Your task to perform on an android device: Search for vegetarian restaurants on Maps Image 0: 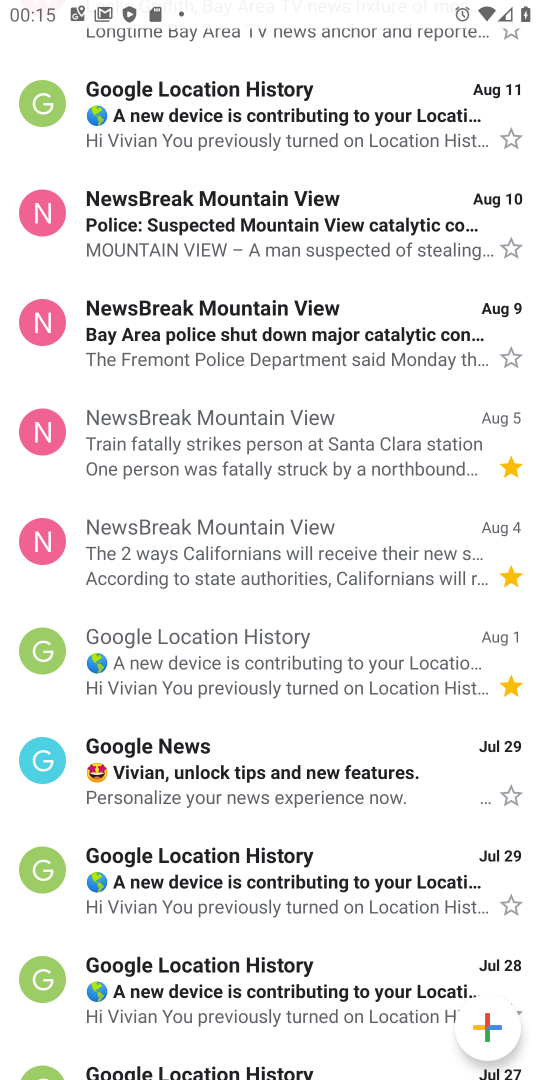
Step 0: press home button
Your task to perform on an android device: Search for vegetarian restaurants on Maps Image 1: 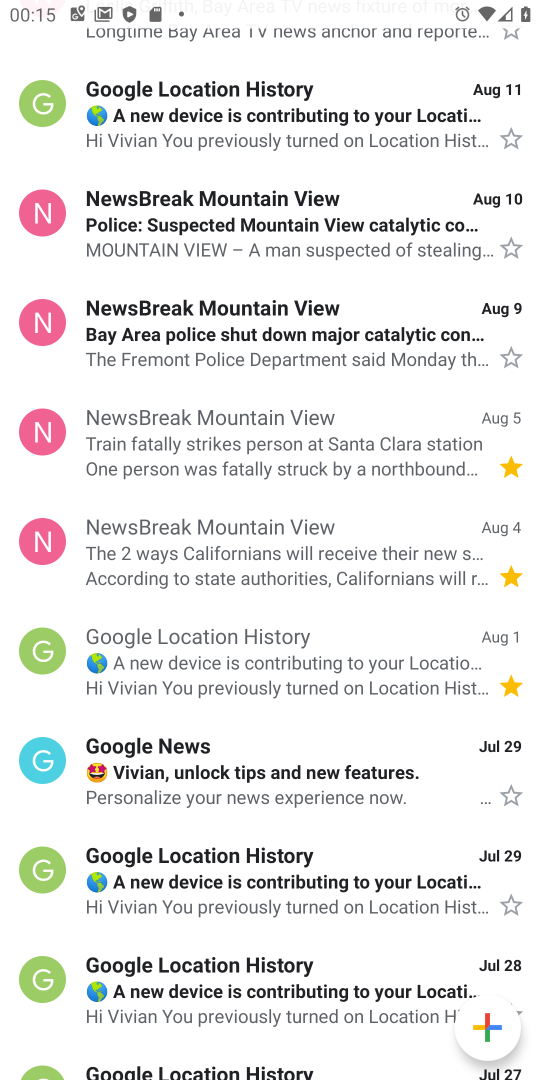
Step 1: press home button
Your task to perform on an android device: Search for vegetarian restaurants on Maps Image 2: 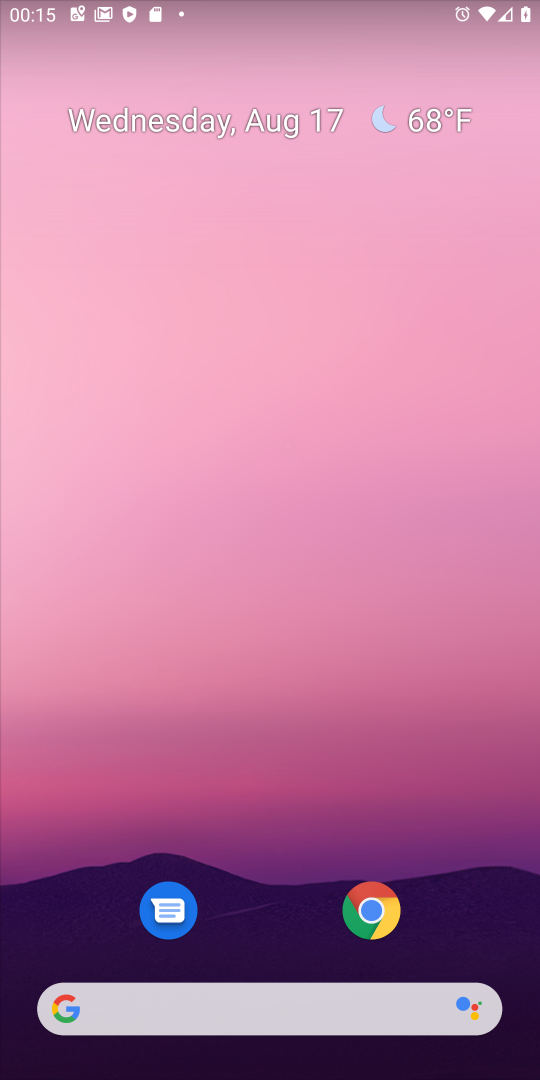
Step 2: drag from (246, 894) to (354, 284)
Your task to perform on an android device: Search for vegetarian restaurants on Maps Image 3: 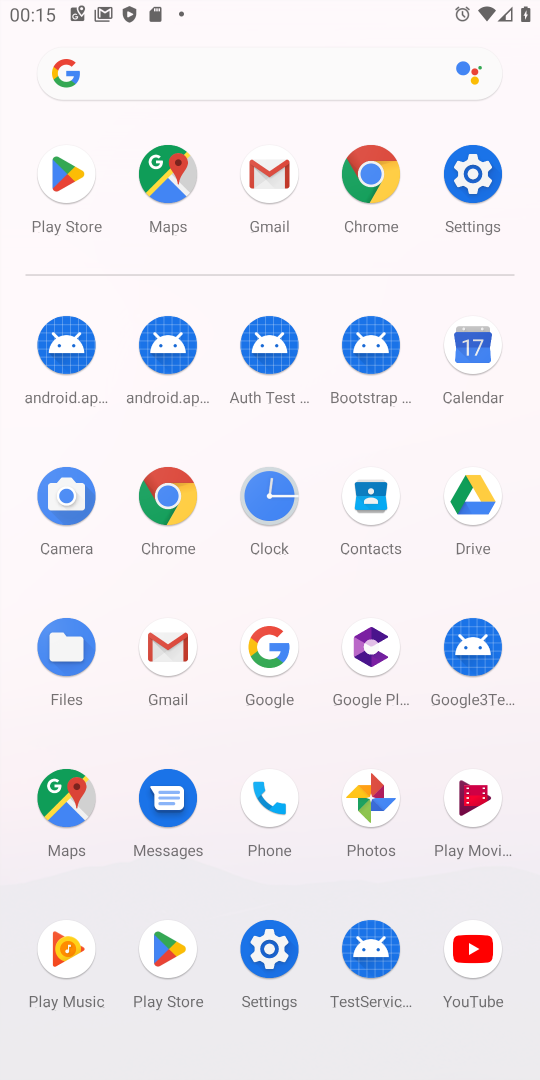
Step 3: click (48, 800)
Your task to perform on an android device: Search for vegetarian restaurants on Maps Image 4: 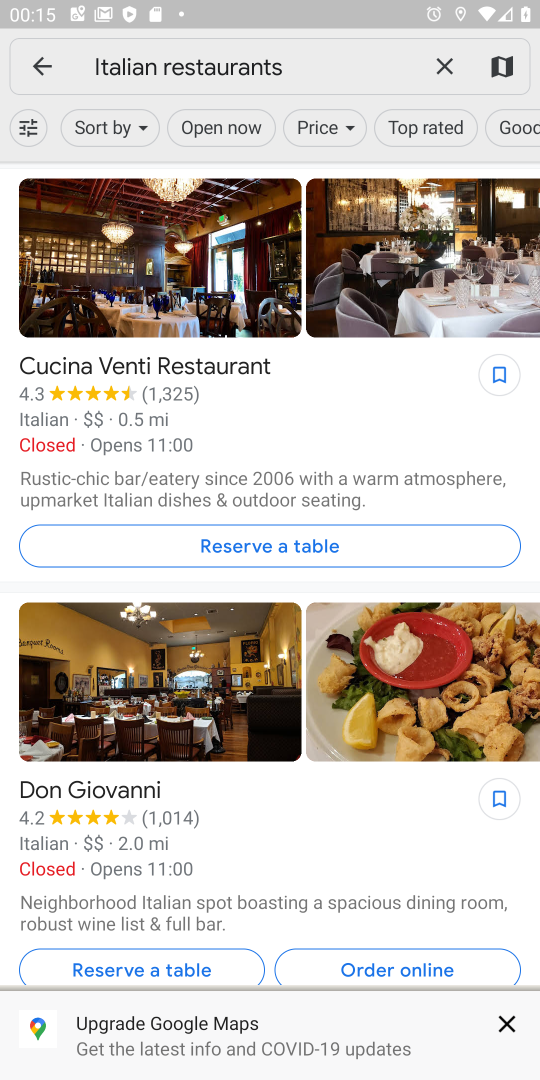
Step 4: click (462, 65)
Your task to perform on an android device: Search for vegetarian restaurants on Maps Image 5: 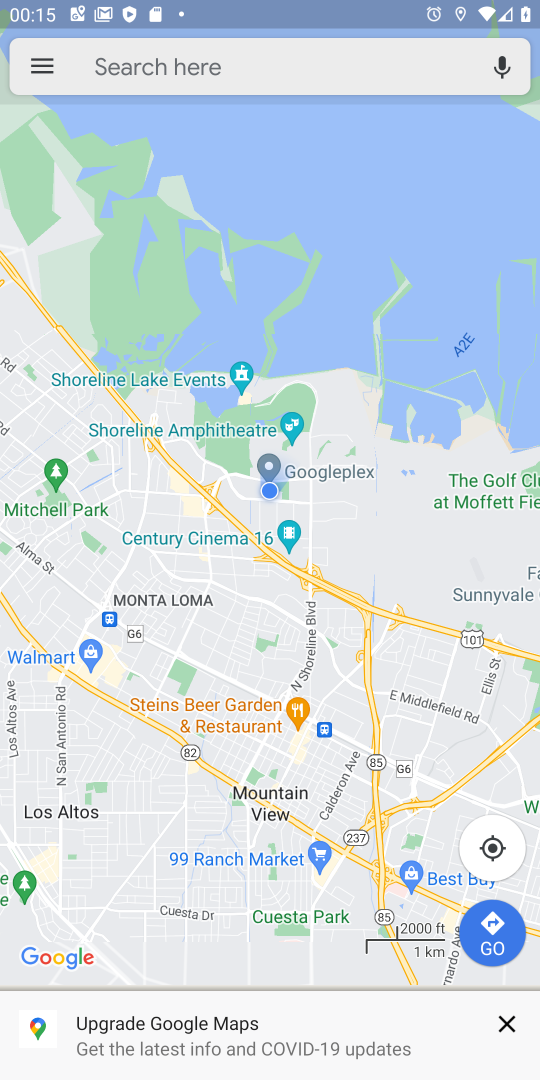
Step 5: click (349, 80)
Your task to perform on an android device: Search for vegetarian restaurants on Maps Image 6: 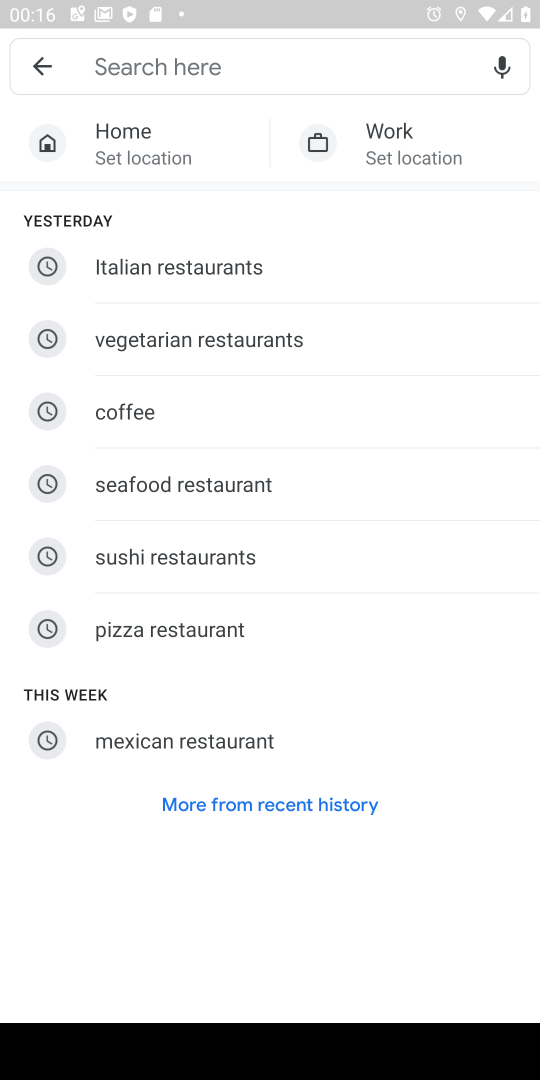
Step 6: click (162, 340)
Your task to perform on an android device: Search for vegetarian restaurants on Maps Image 7: 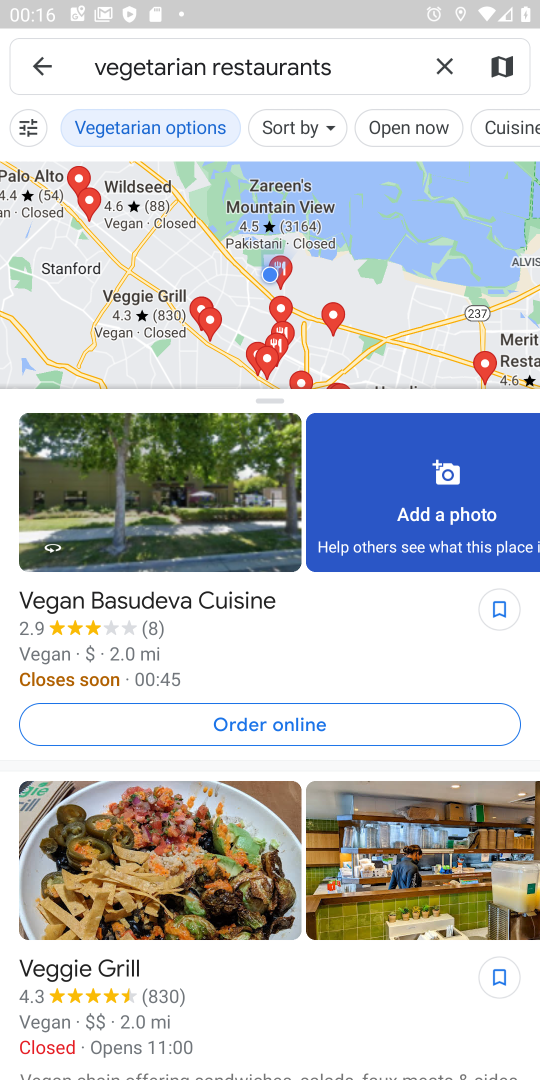
Step 7: task complete